Your task to perform on an android device: open chrome and create a bookmark for the current page Image 0: 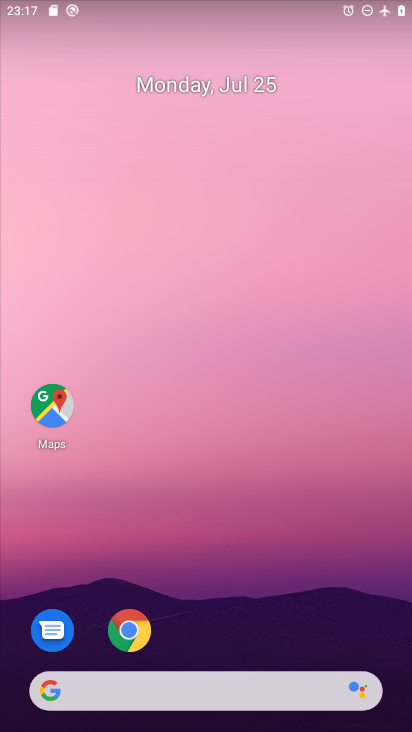
Step 0: drag from (280, 639) to (270, 18)
Your task to perform on an android device: open chrome and create a bookmark for the current page Image 1: 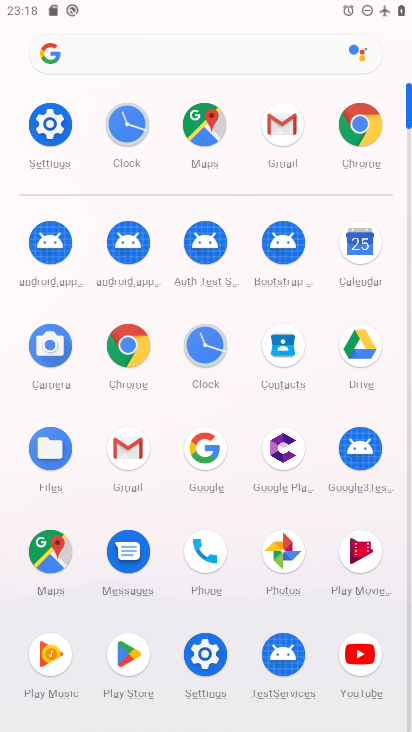
Step 1: click (127, 344)
Your task to perform on an android device: open chrome and create a bookmark for the current page Image 2: 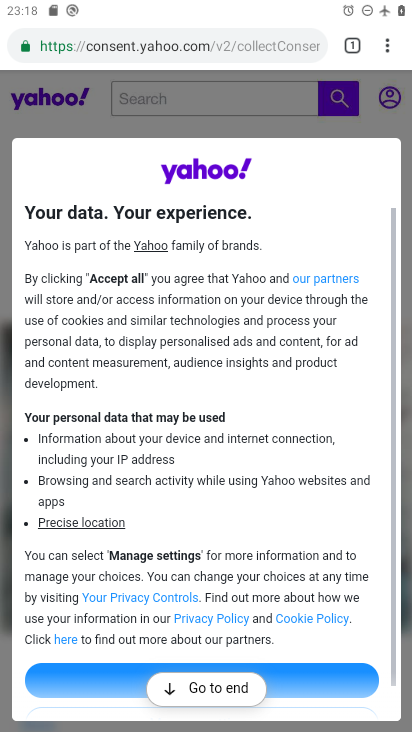
Step 2: task complete